Your task to perform on an android device: What is the capital of Germany? Image 0: 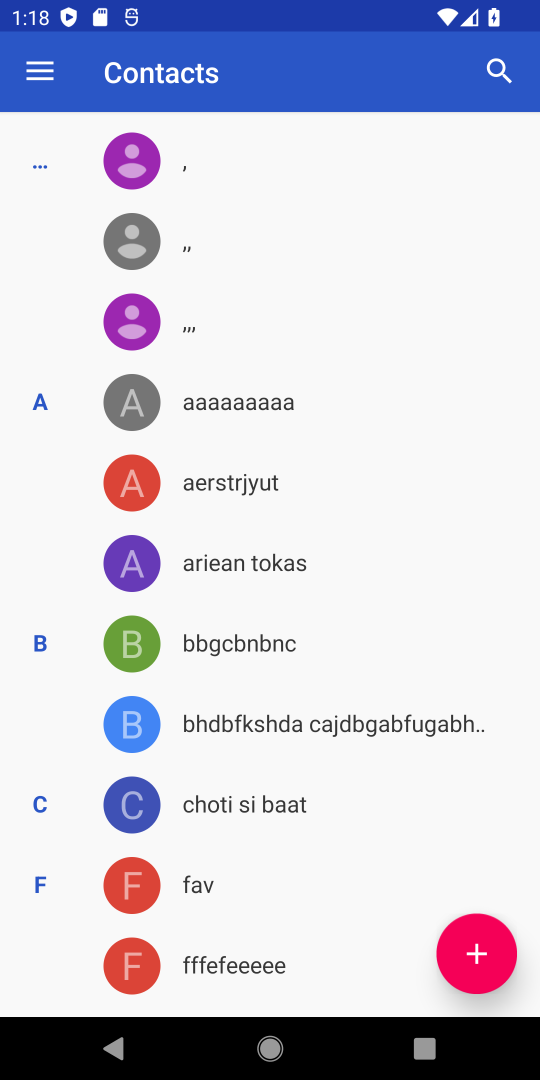
Step 0: press home button
Your task to perform on an android device: What is the capital of Germany? Image 1: 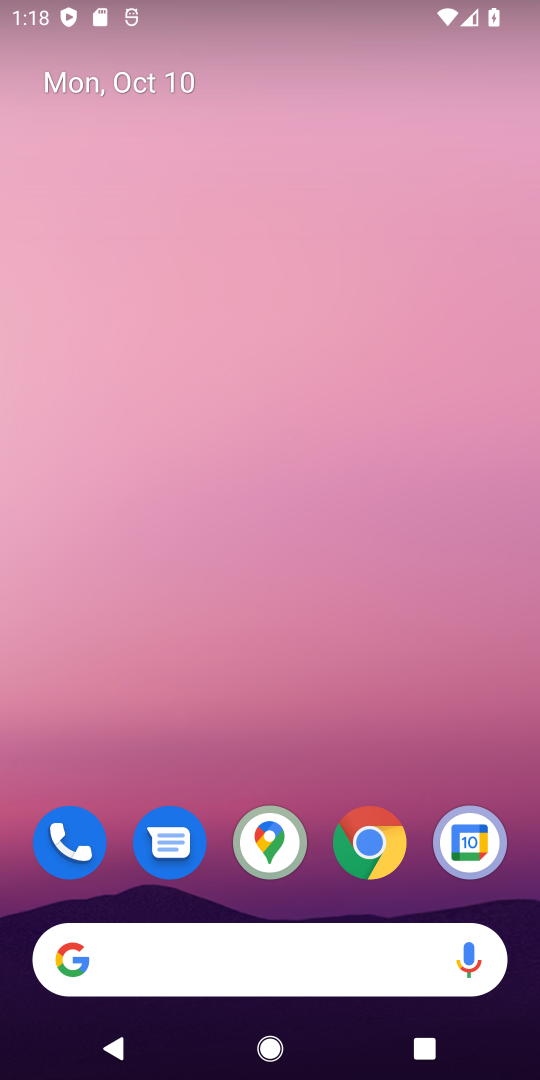
Step 1: click (357, 845)
Your task to perform on an android device: What is the capital of Germany? Image 2: 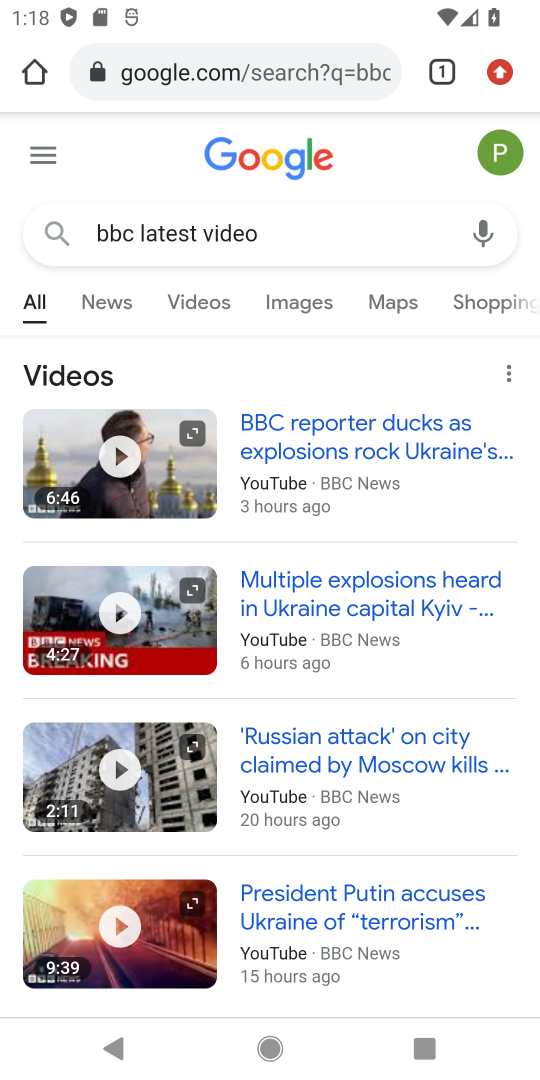
Step 2: click (293, 69)
Your task to perform on an android device: What is the capital of Germany? Image 3: 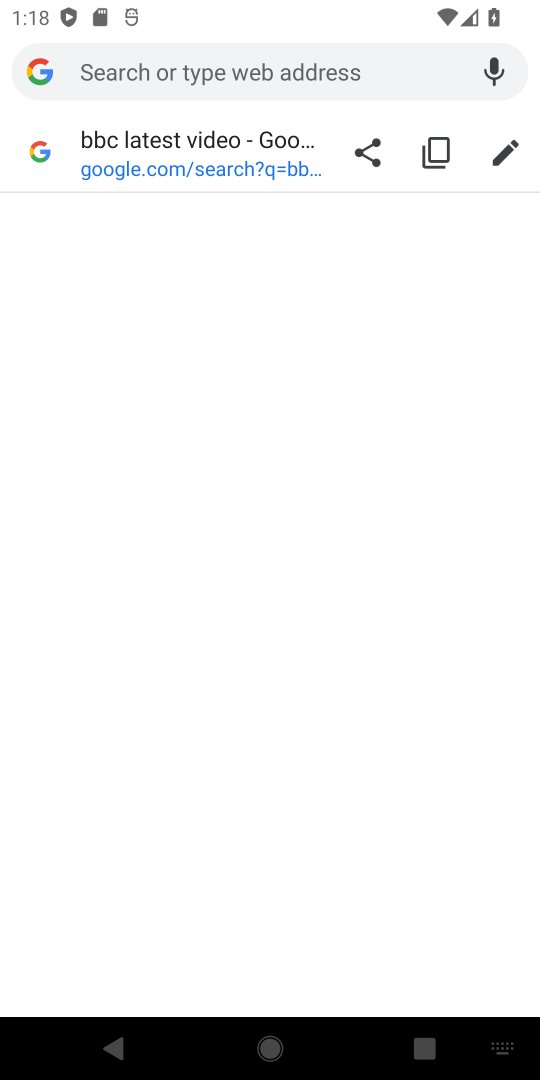
Step 3: type "capital of Germany"
Your task to perform on an android device: What is the capital of Germany? Image 4: 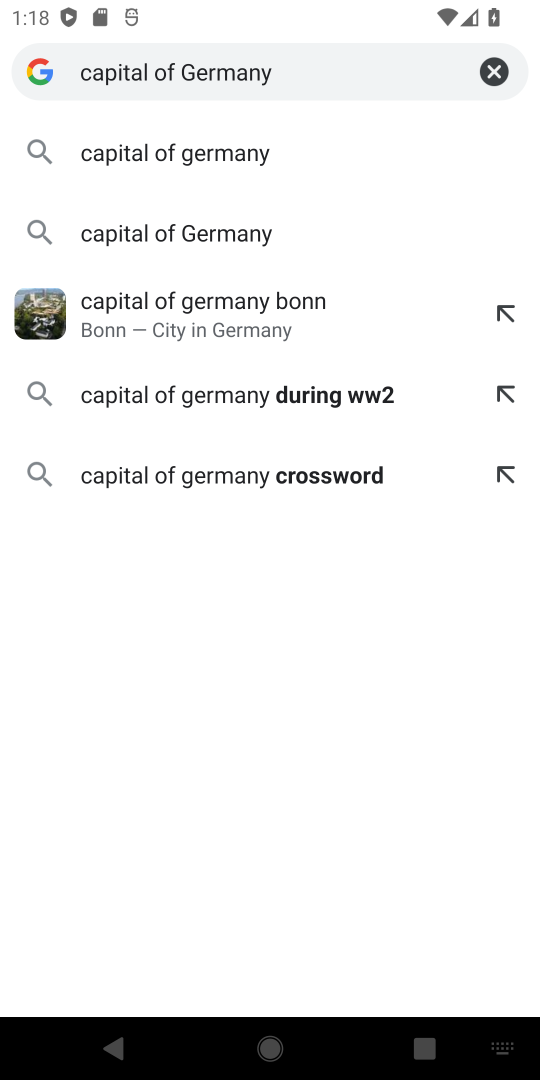
Step 4: press enter
Your task to perform on an android device: What is the capital of Germany? Image 5: 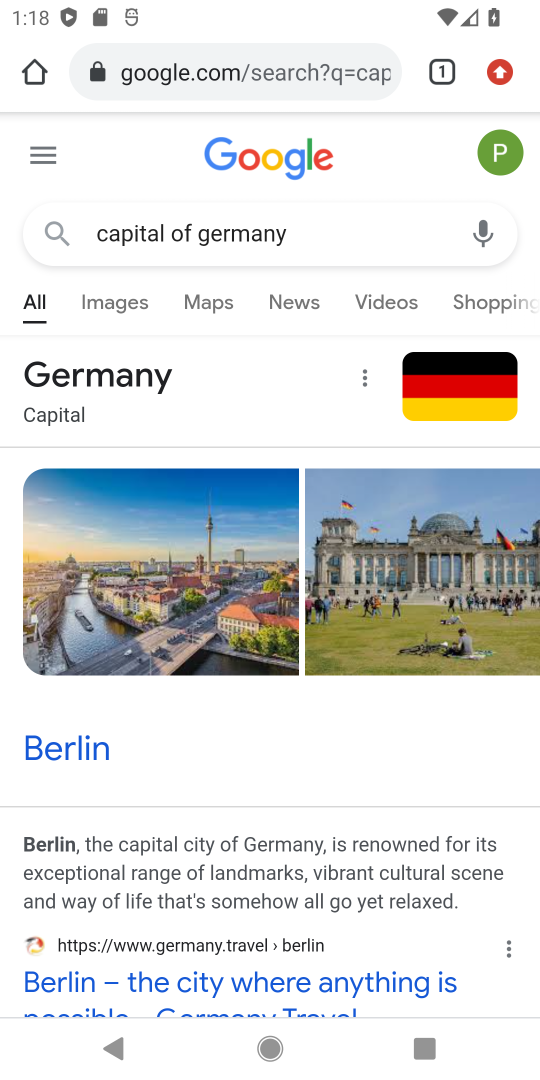
Step 5: drag from (386, 832) to (381, 757)
Your task to perform on an android device: What is the capital of Germany? Image 6: 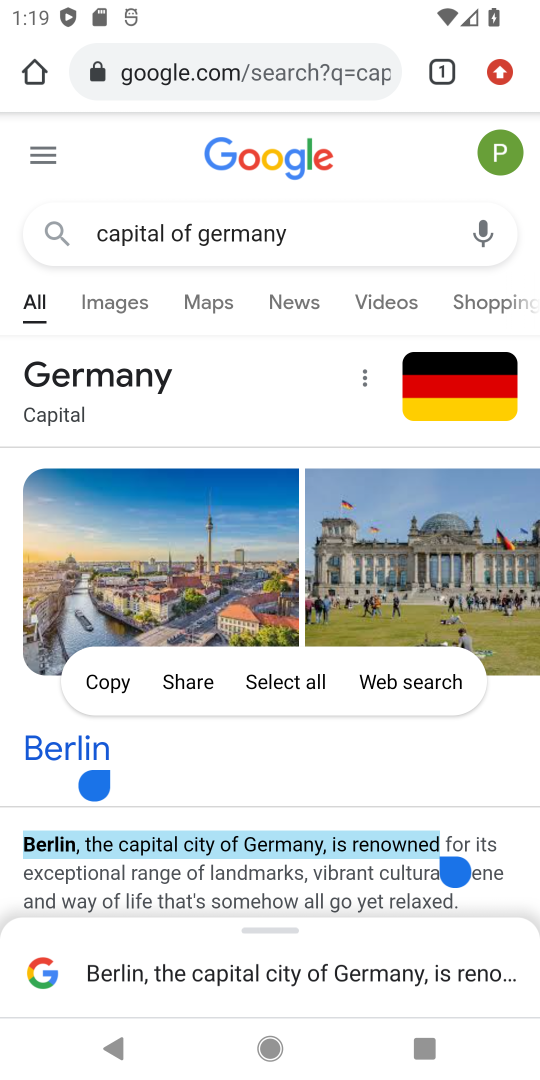
Step 6: click (372, 729)
Your task to perform on an android device: What is the capital of Germany? Image 7: 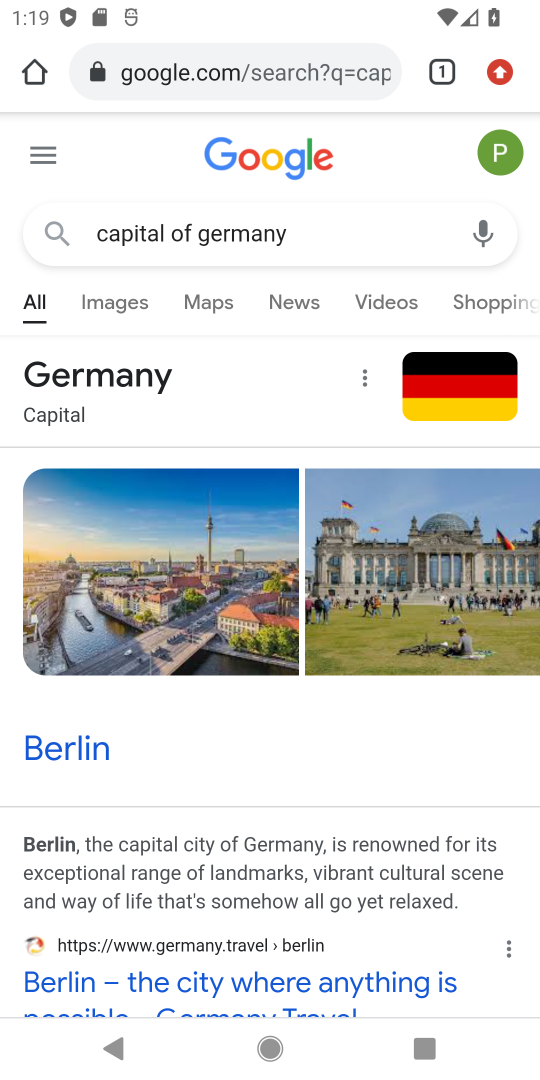
Step 7: task complete